Your task to perform on an android device: add a contact Image 0: 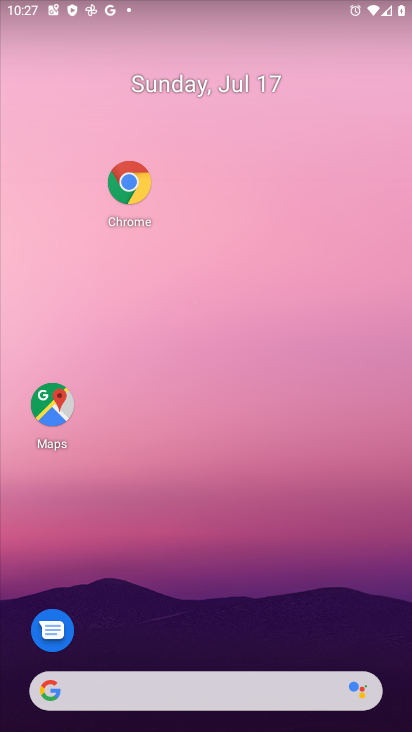
Step 0: drag from (200, 8) to (233, 31)
Your task to perform on an android device: add a contact Image 1: 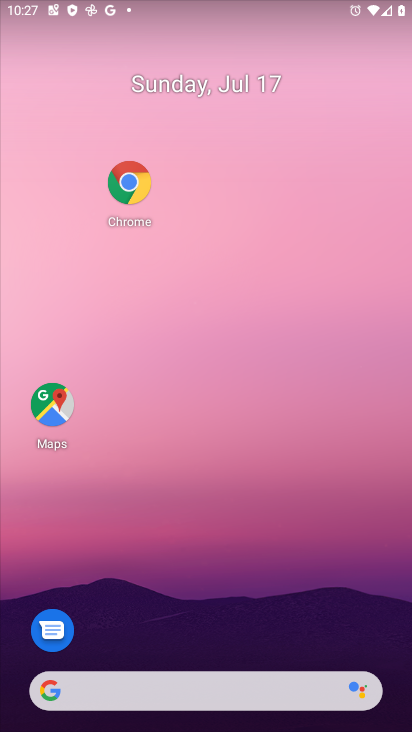
Step 1: drag from (170, 649) to (175, 23)
Your task to perform on an android device: add a contact Image 2: 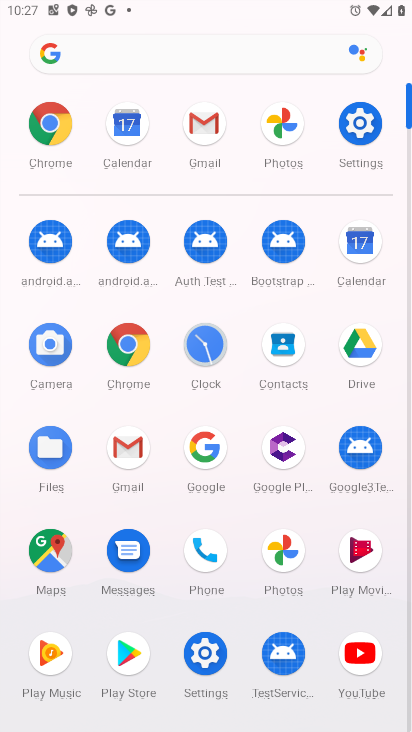
Step 2: click (290, 377)
Your task to perform on an android device: add a contact Image 3: 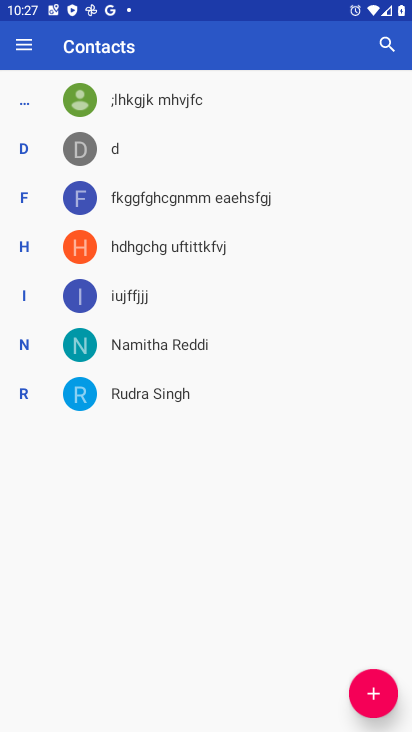
Step 3: click (385, 692)
Your task to perform on an android device: add a contact Image 4: 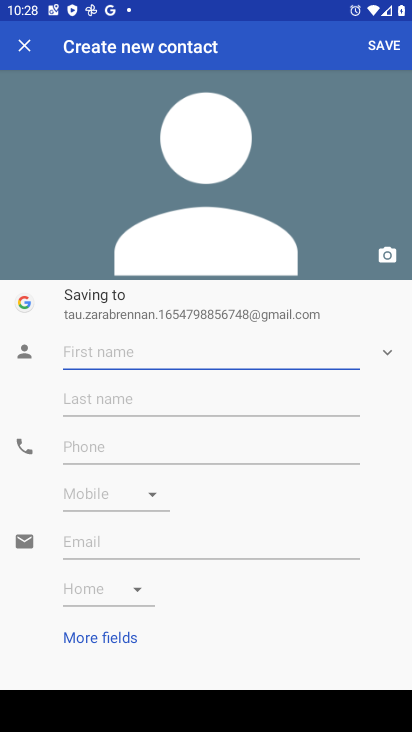
Step 4: type "Natkhat"
Your task to perform on an android device: add a contact Image 5: 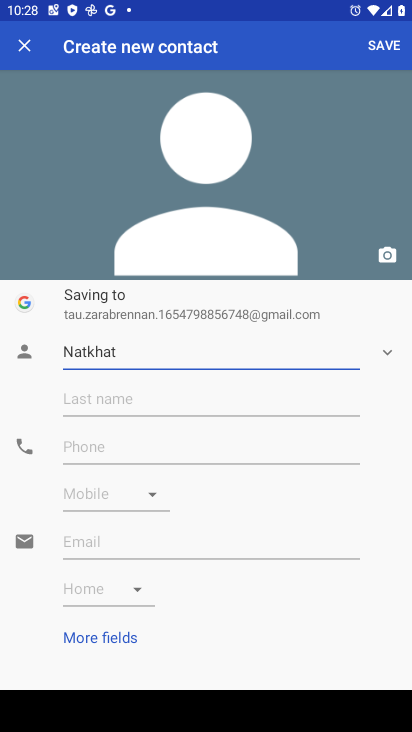
Step 5: click (226, 409)
Your task to perform on an android device: add a contact Image 6: 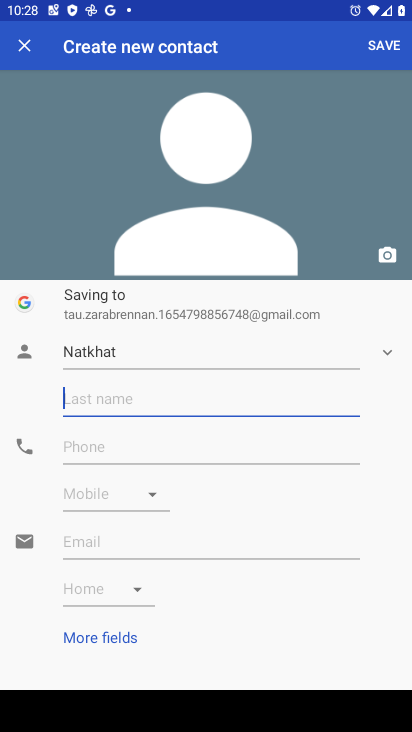
Step 6: type "8909890900"
Your task to perform on an android device: add a contact Image 7: 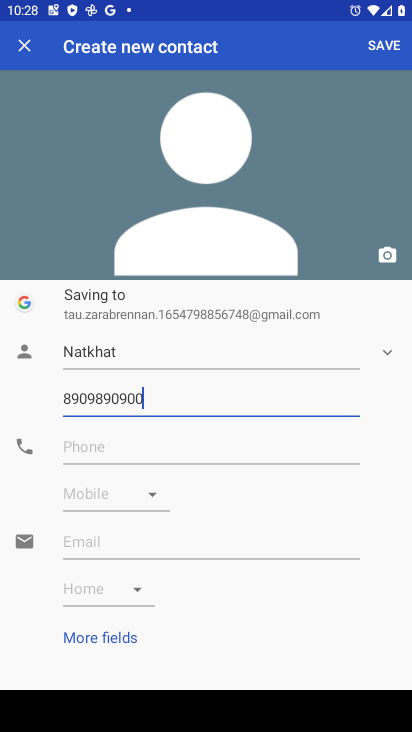
Step 7: click (92, 405)
Your task to perform on an android device: add a contact Image 8: 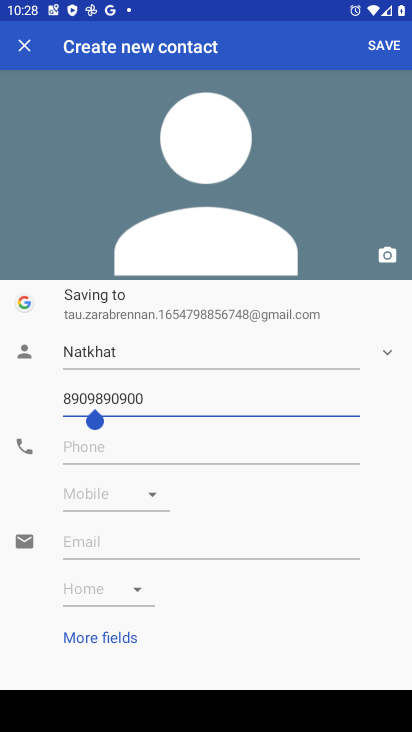
Step 8: click (92, 405)
Your task to perform on an android device: add a contact Image 9: 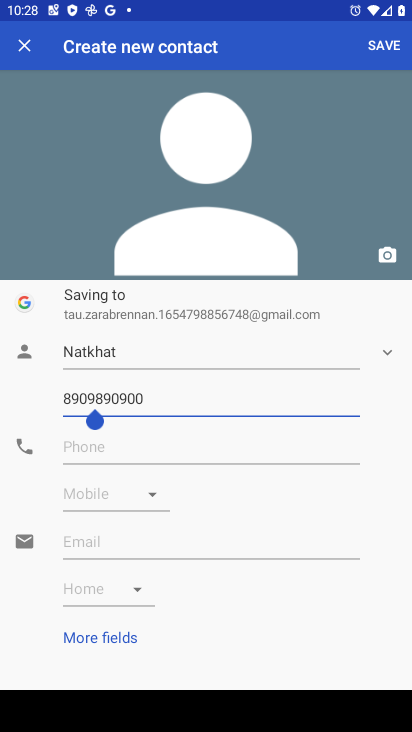
Step 9: click (92, 405)
Your task to perform on an android device: add a contact Image 10: 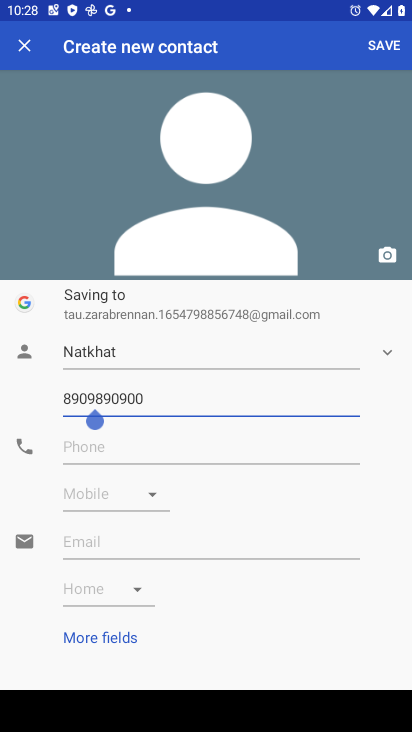
Step 10: click (92, 405)
Your task to perform on an android device: add a contact Image 11: 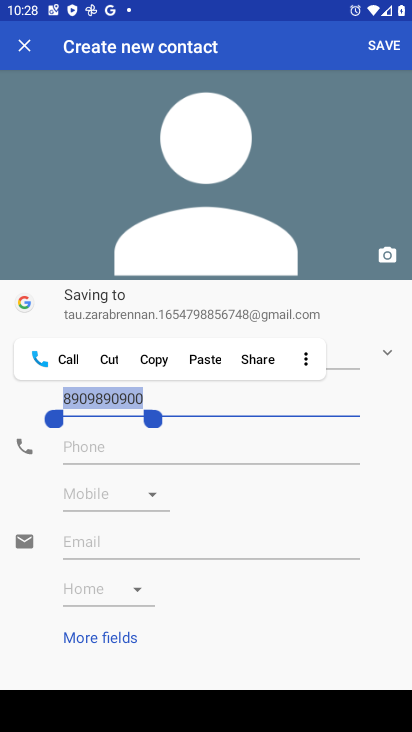
Step 11: click (102, 398)
Your task to perform on an android device: add a contact Image 12: 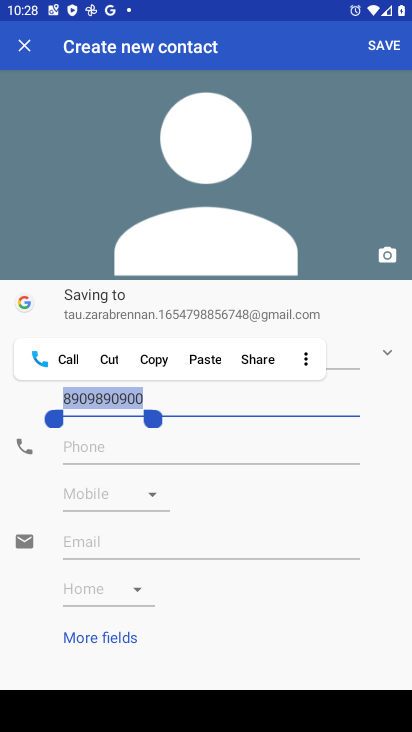
Step 12: click (102, 398)
Your task to perform on an android device: add a contact Image 13: 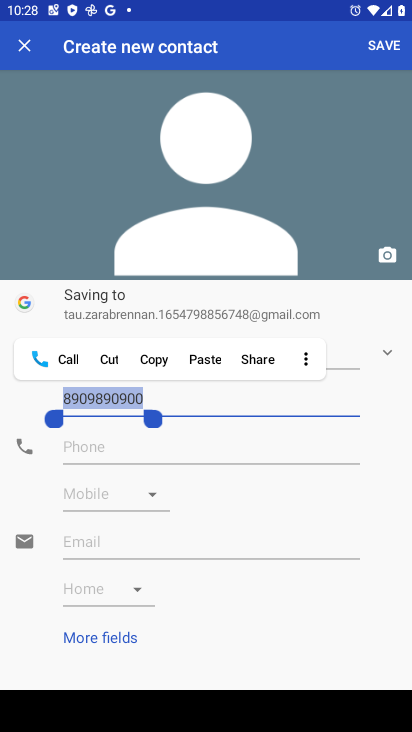
Step 13: click (110, 363)
Your task to perform on an android device: add a contact Image 14: 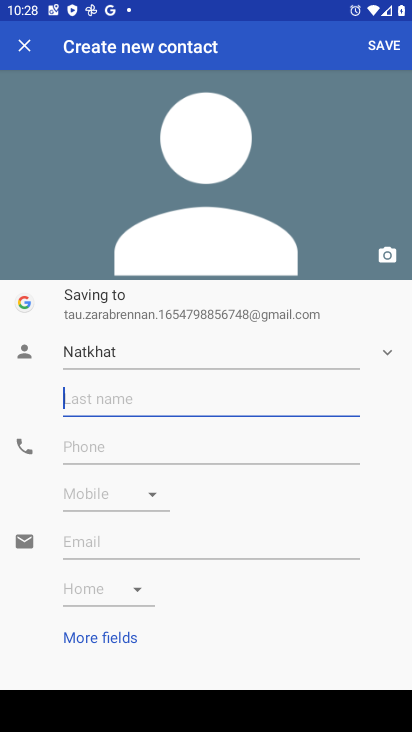
Step 14: click (94, 453)
Your task to perform on an android device: add a contact Image 15: 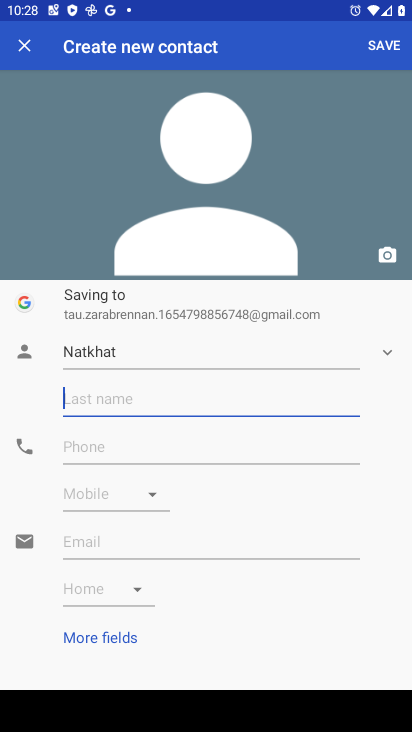
Step 15: click (94, 453)
Your task to perform on an android device: add a contact Image 16: 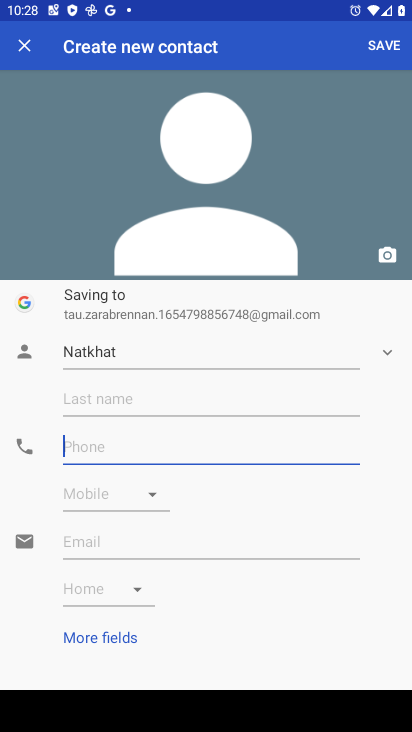
Step 16: click (95, 446)
Your task to perform on an android device: add a contact Image 17: 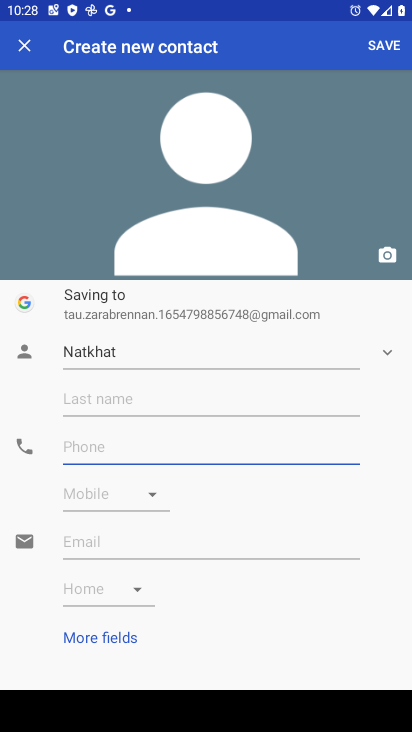
Step 17: click (95, 446)
Your task to perform on an android device: add a contact Image 18: 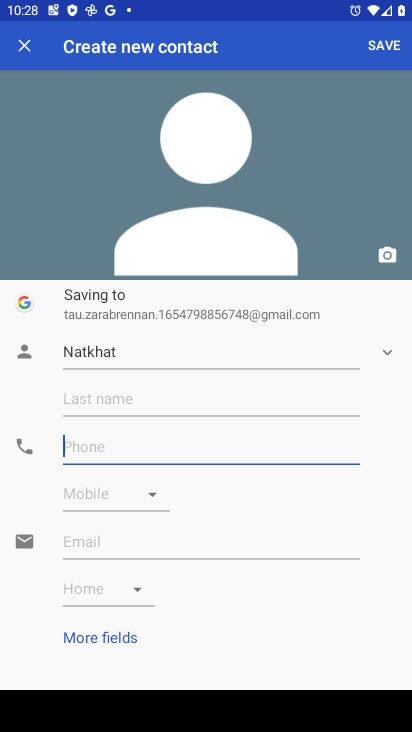
Step 18: click (95, 446)
Your task to perform on an android device: add a contact Image 19: 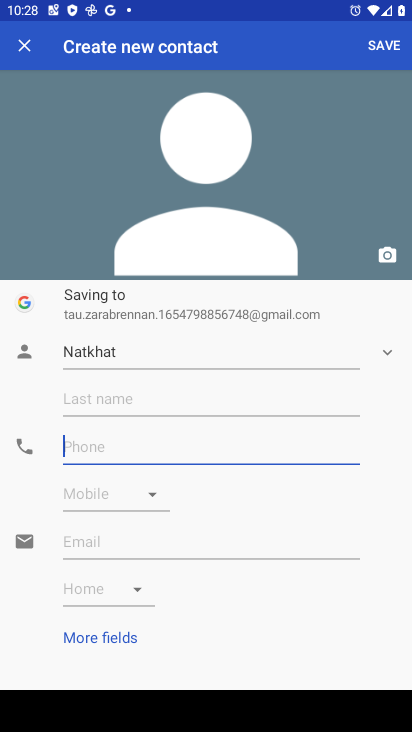
Step 19: click (95, 446)
Your task to perform on an android device: add a contact Image 20: 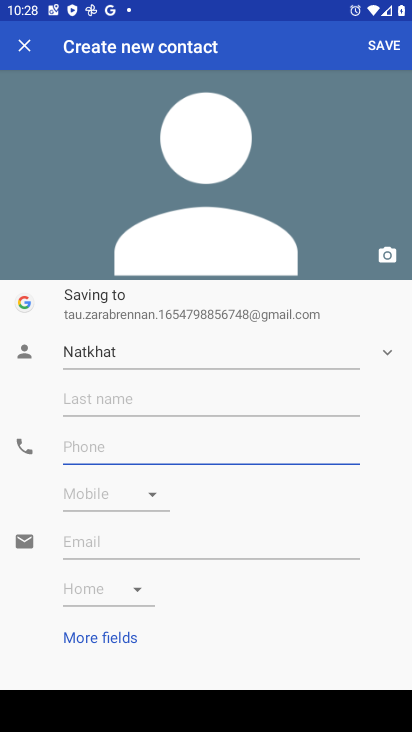
Step 20: click (95, 446)
Your task to perform on an android device: add a contact Image 21: 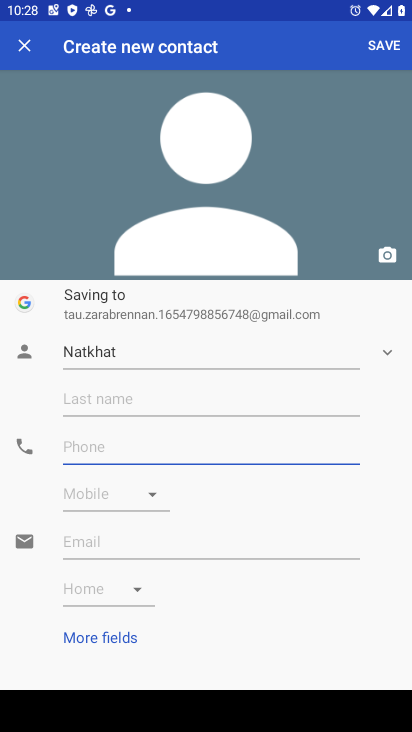
Step 21: type "9009909900"
Your task to perform on an android device: add a contact Image 22: 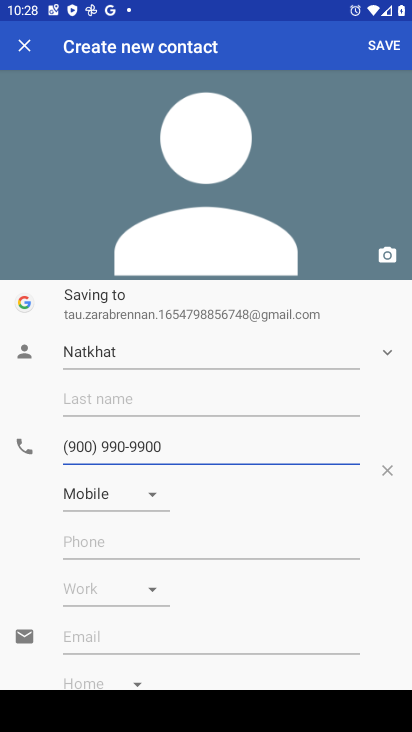
Step 22: click (385, 45)
Your task to perform on an android device: add a contact Image 23: 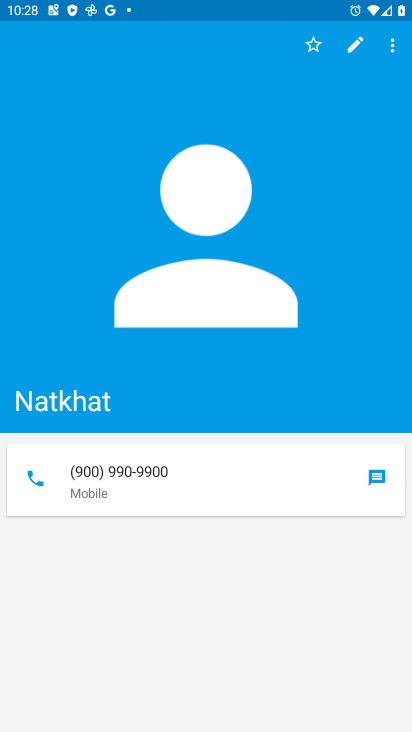
Step 23: task complete